Your task to perform on an android device: Show me productivity apps on the Play Store Image 0: 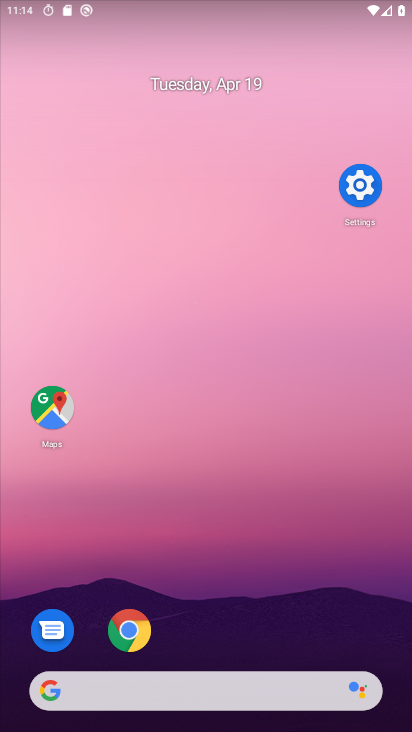
Step 0: click (229, 437)
Your task to perform on an android device: Show me productivity apps on the Play Store Image 1: 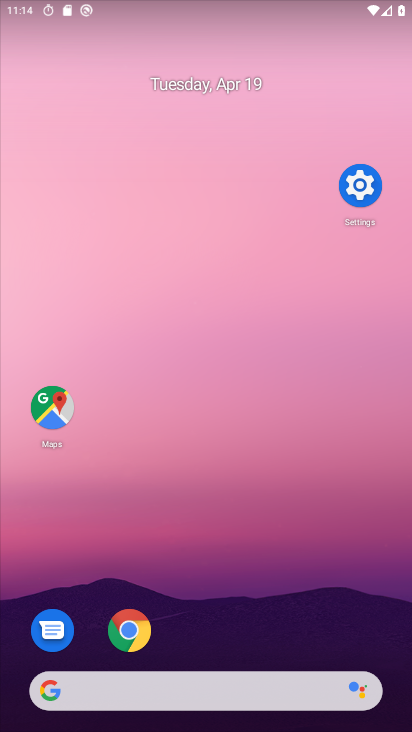
Step 1: drag from (182, 523) to (206, 188)
Your task to perform on an android device: Show me productivity apps on the Play Store Image 2: 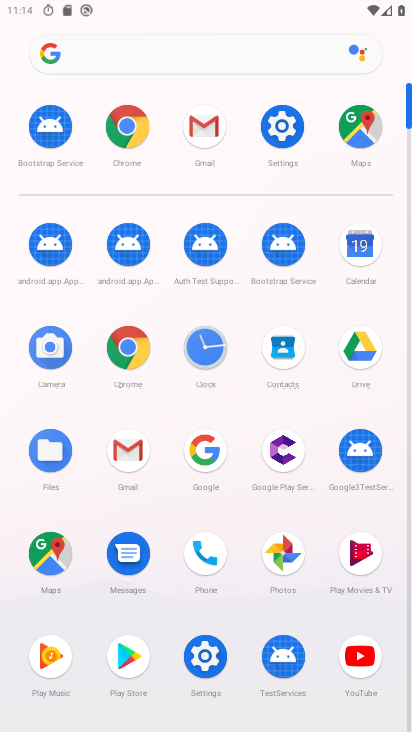
Step 2: click (137, 671)
Your task to perform on an android device: Show me productivity apps on the Play Store Image 3: 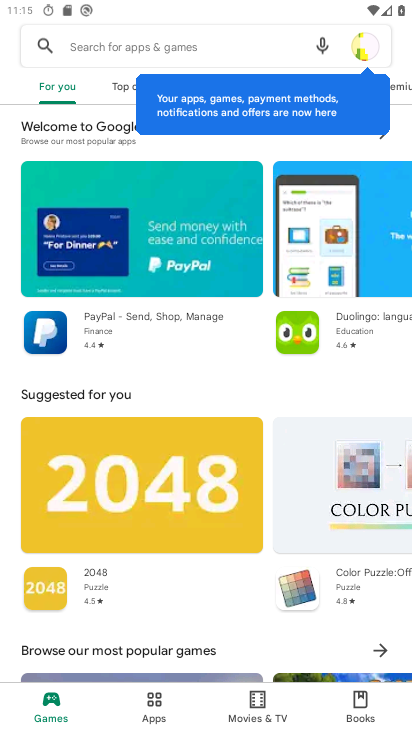
Step 3: click (233, 39)
Your task to perform on an android device: Show me productivity apps on the Play Store Image 4: 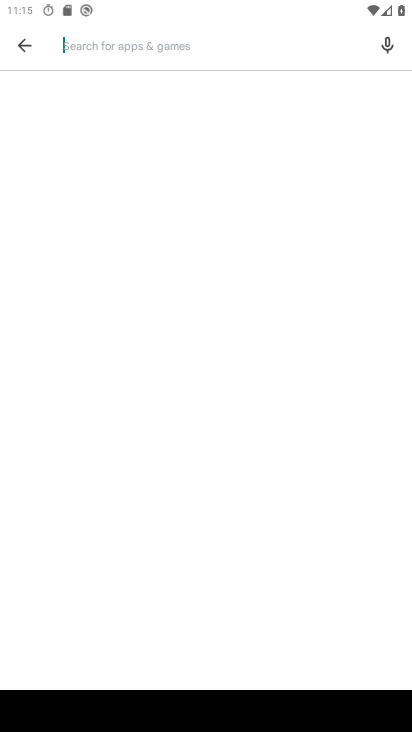
Step 4: type "productivity aaps"
Your task to perform on an android device: Show me productivity apps on the Play Store Image 5: 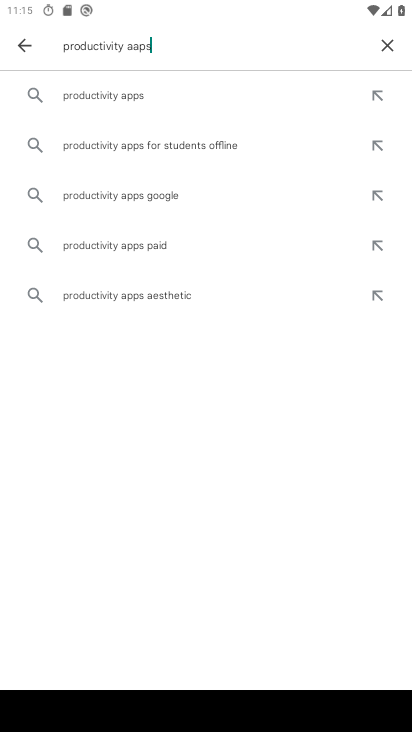
Step 5: click (292, 99)
Your task to perform on an android device: Show me productivity apps on the Play Store Image 6: 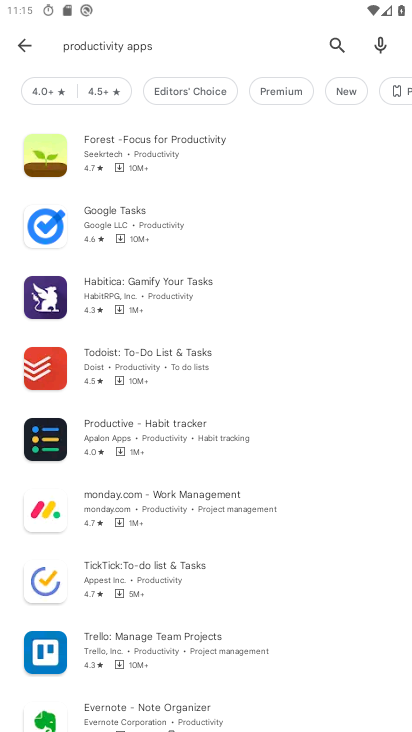
Step 6: task complete